Your task to perform on an android device: find which apps use the phone's location Image 0: 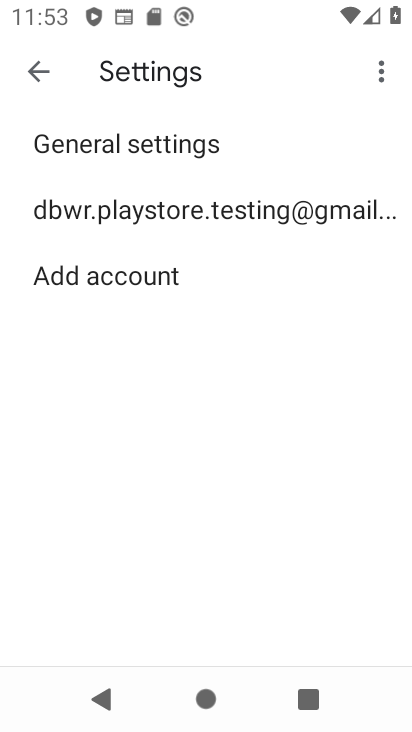
Step 0: press home button
Your task to perform on an android device: find which apps use the phone's location Image 1: 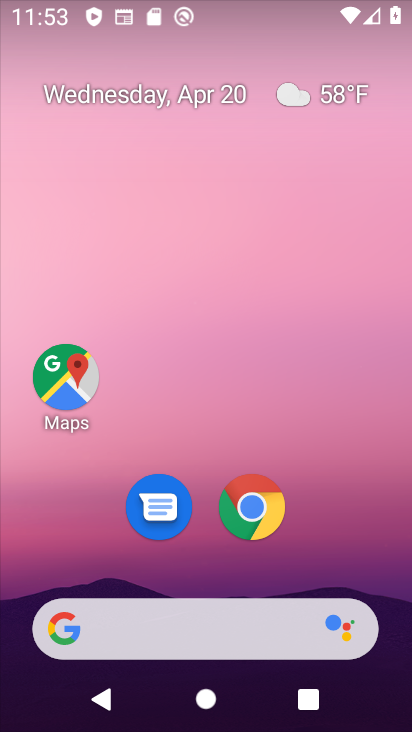
Step 1: drag from (321, 427) to (325, 168)
Your task to perform on an android device: find which apps use the phone's location Image 2: 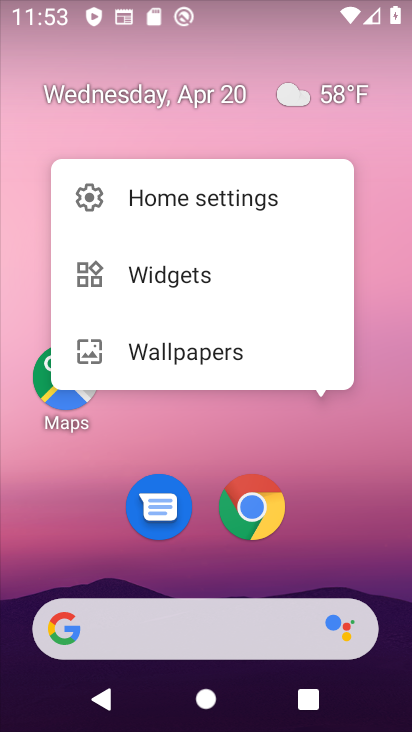
Step 2: click (367, 428)
Your task to perform on an android device: find which apps use the phone's location Image 3: 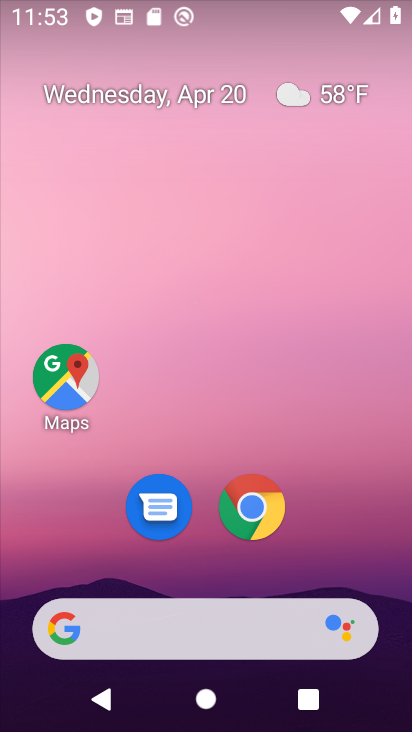
Step 3: click (364, 444)
Your task to perform on an android device: find which apps use the phone's location Image 4: 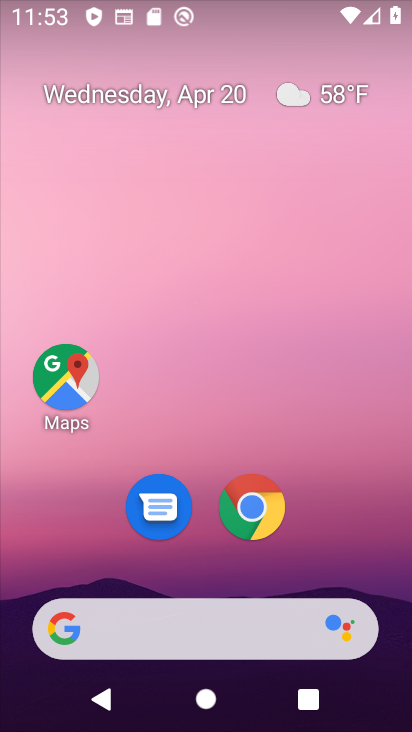
Step 4: drag from (346, 512) to (348, 89)
Your task to perform on an android device: find which apps use the phone's location Image 5: 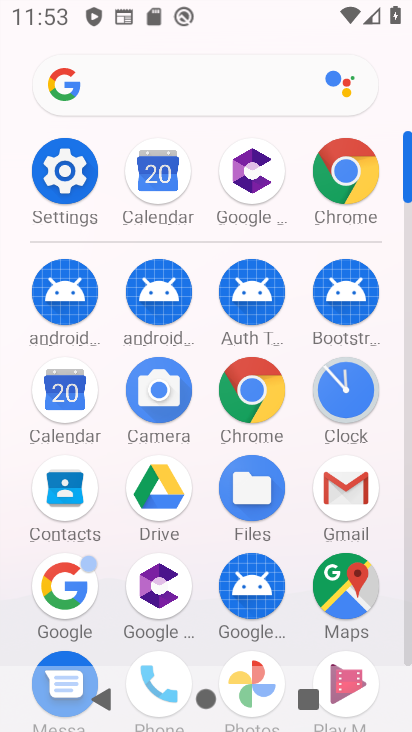
Step 5: click (67, 173)
Your task to perform on an android device: find which apps use the phone's location Image 6: 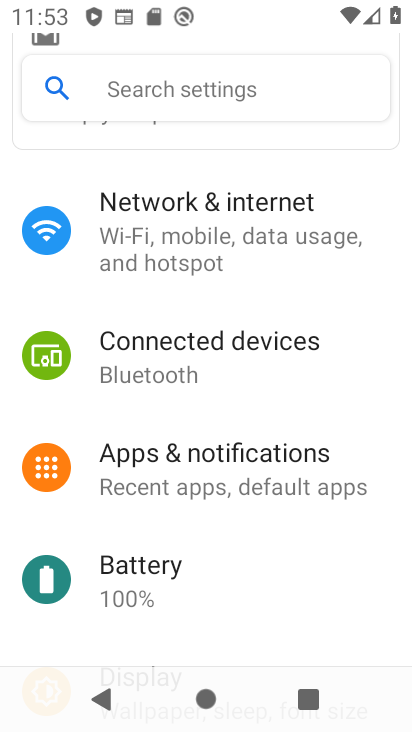
Step 6: drag from (339, 577) to (349, 378)
Your task to perform on an android device: find which apps use the phone's location Image 7: 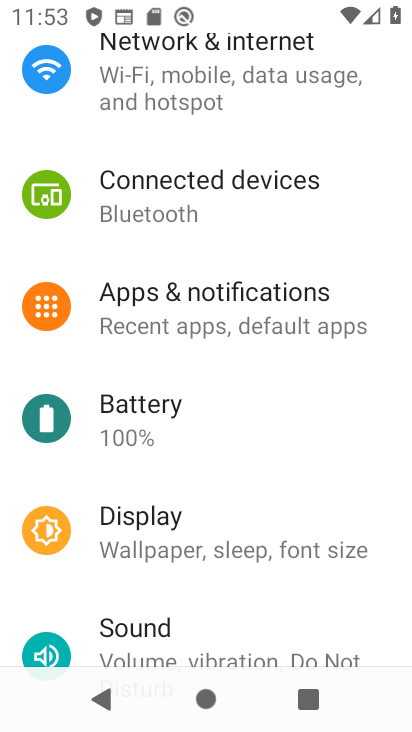
Step 7: drag from (340, 593) to (340, 360)
Your task to perform on an android device: find which apps use the phone's location Image 8: 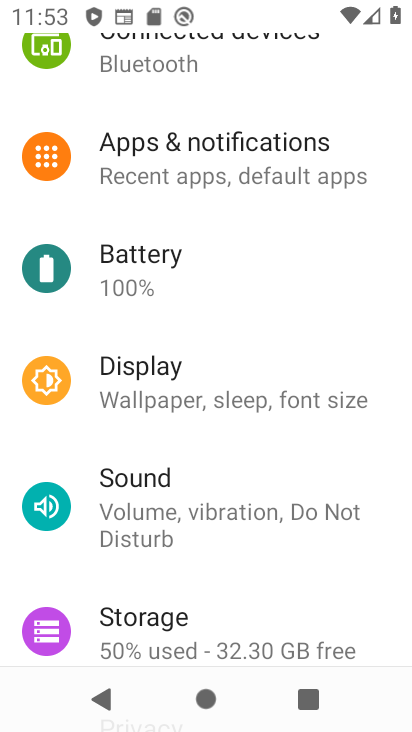
Step 8: drag from (346, 592) to (351, 416)
Your task to perform on an android device: find which apps use the phone's location Image 9: 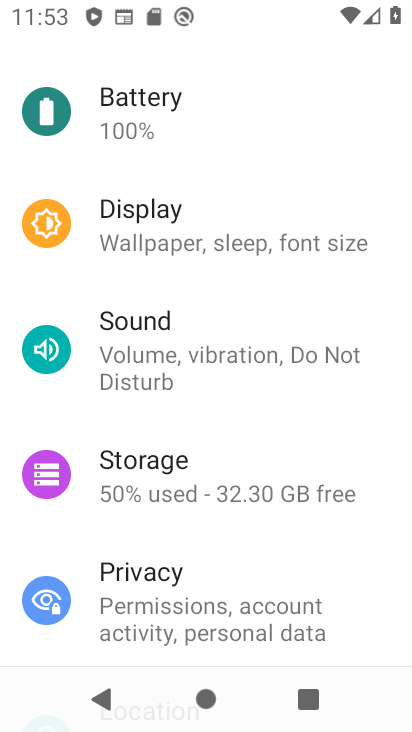
Step 9: drag from (365, 601) to (377, 543)
Your task to perform on an android device: find which apps use the phone's location Image 10: 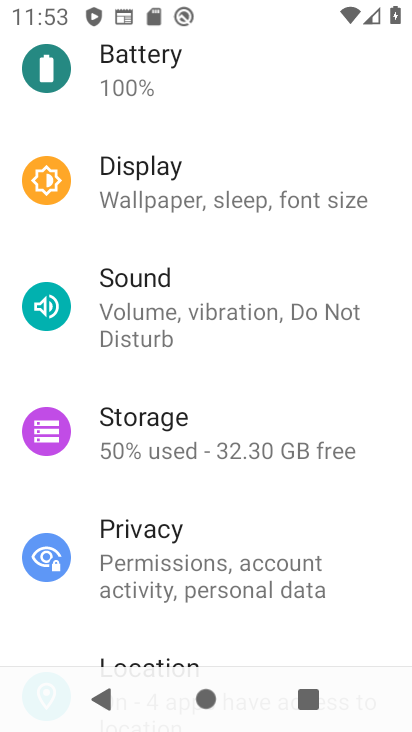
Step 10: drag from (377, 589) to (361, 383)
Your task to perform on an android device: find which apps use the phone's location Image 11: 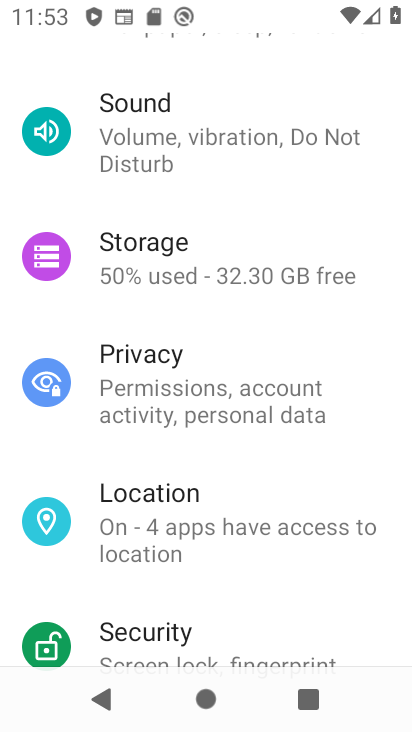
Step 11: drag from (359, 592) to (372, 437)
Your task to perform on an android device: find which apps use the phone's location Image 12: 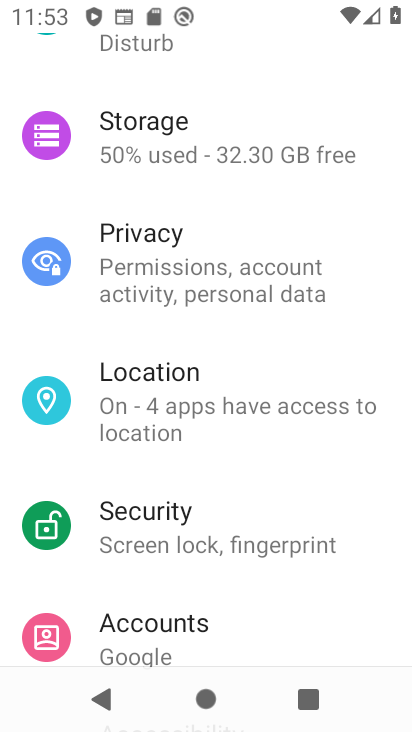
Step 12: click (233, 414)
Your task to perform on an android device: find which apps use the phone's location Image 13: 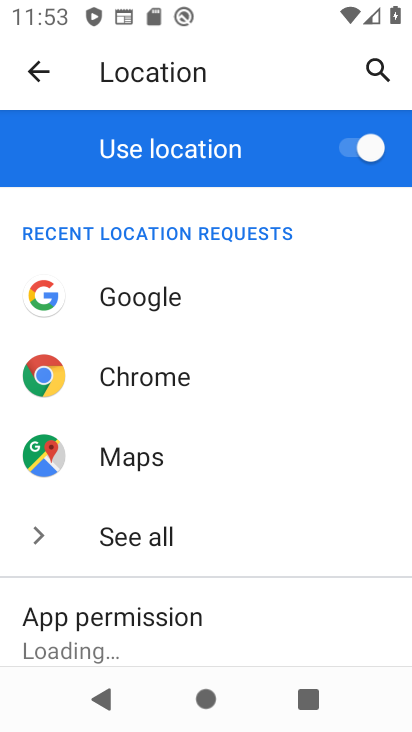
Step 13: drag from (315, 580) to (323, 356)
Your task to perform on an android device: find which apps use the phone's location Image 14: 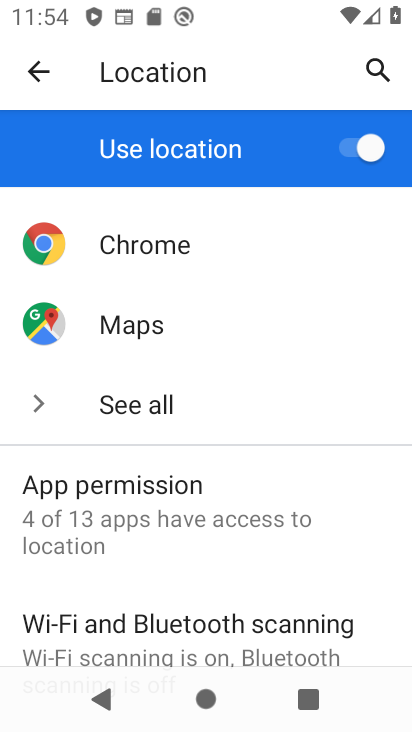
Step 14: click (206, 519)
Your task to perform on an android device: find which apps use the phone's location Image 15: 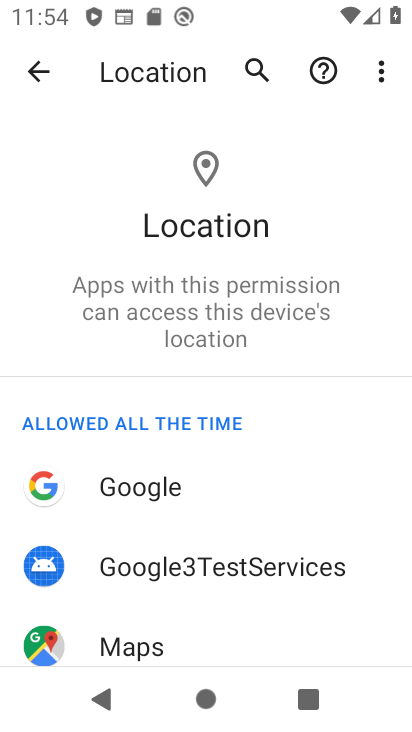
Step 15: drag from (337, 493) to (346, 367)
Your task to perform on an android device: find which apps use the phone's location Image 16: 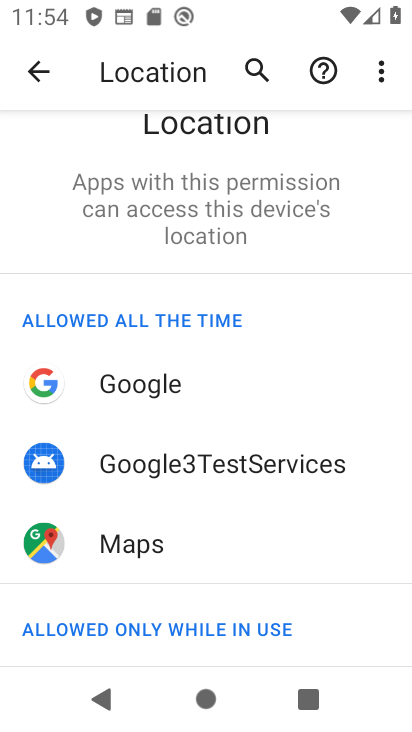
Step 16: drag from (352, 521) to (351, 300)
Your task to perform on an android device: find which apps use the phone's location Image 17: 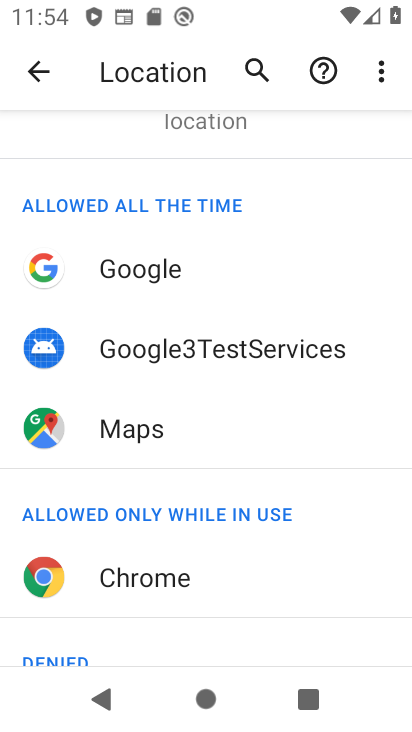
Step 17: drag from (339, 501) to (323, 280)
Your task to perform on an android device: find which apps use the phone's location Image 18: 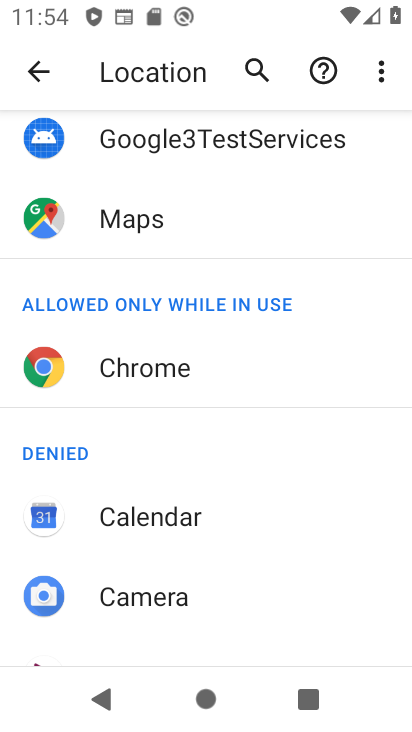
Step 18: drag from (330, 522) to (365, 324)
Your task to perform on an android device: find which apps use the phone's location Image 19: 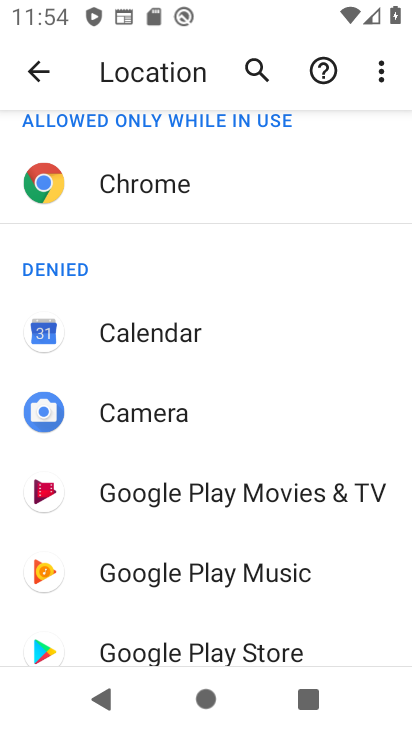
Step 19: drag from (340, 613) to (342, 273)
Your task to perform on an android device: find which apps use the phone's location Image 20: 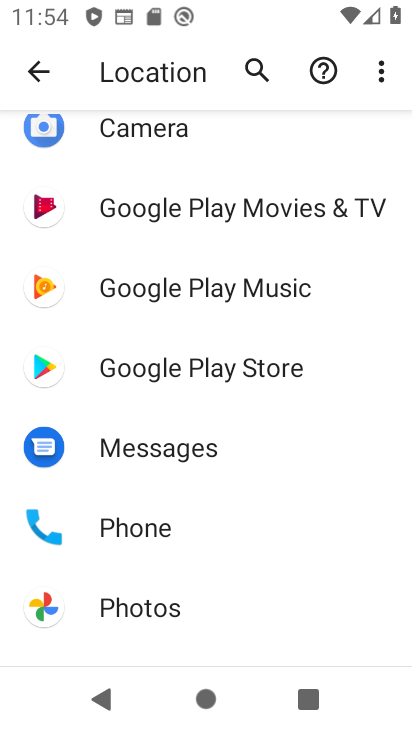
Step 20: drag from (312, 571) to (324, 408)
Your task to perform on an android device: find which apps use the phone's location Image 21: 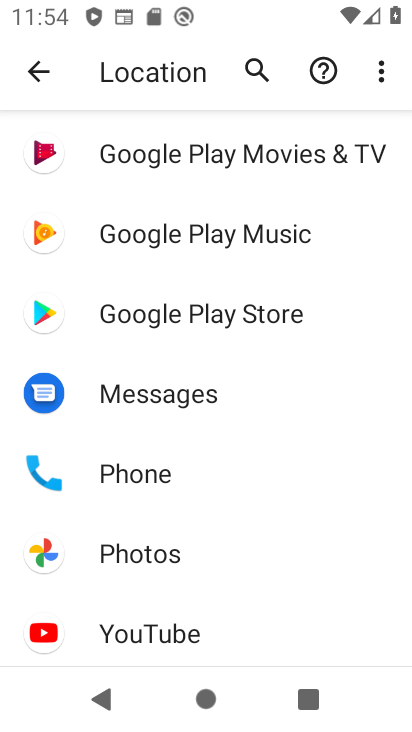
Step 21: click (171, 546)
Your task to perform on an android device: find which apps use the phone's location Image 22: 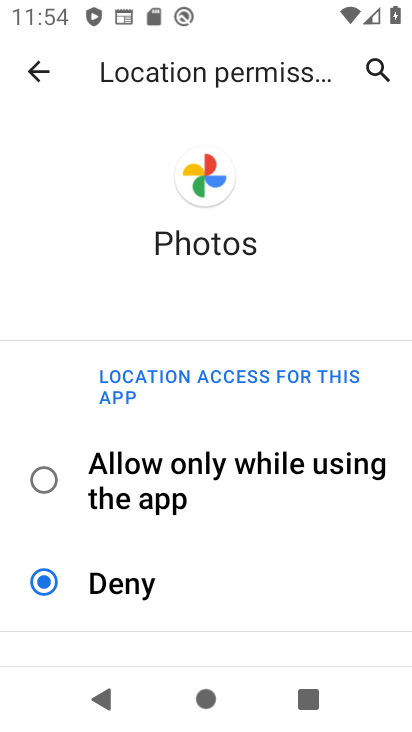
Step 22: click (55, 476)
Your task to perform on an android device: find which apps use the phone's location Image 23: 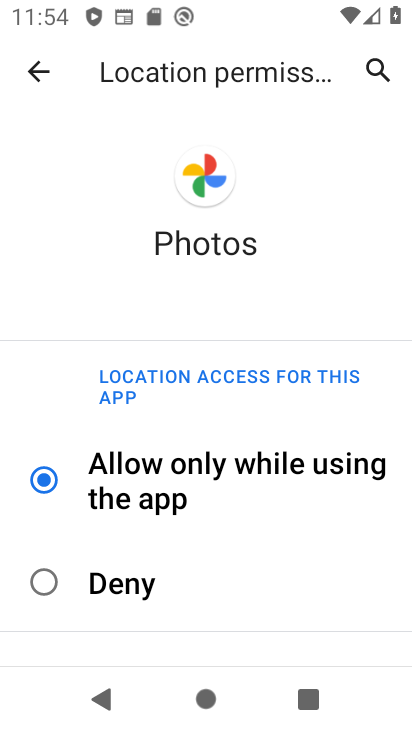
Step 23: task complete